Your task to perform on an android device: Open privacy settings Image 0: 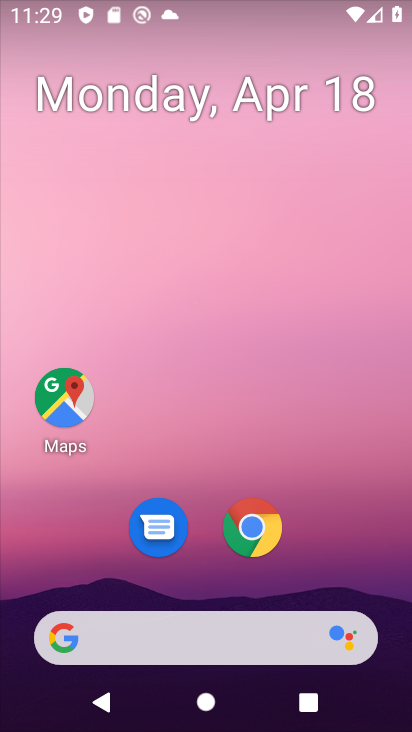
Step 0: drag from (223, 614) to (404, 137)
Your task to perform on an android device: Open privacy settings Image 1: 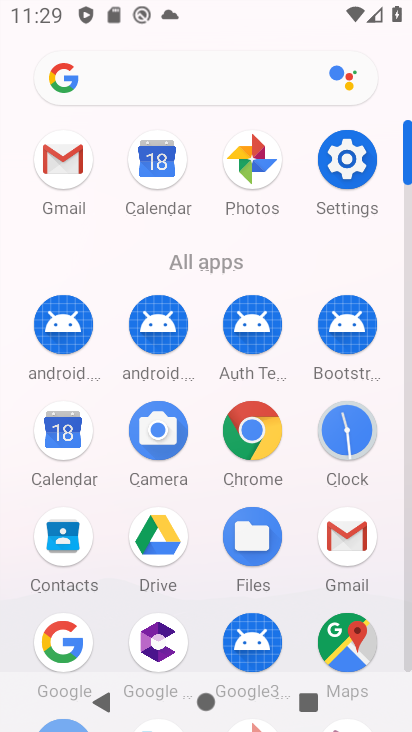
Step 1: click (361, 160)
Your task to perform on an android device: Open privacy settings Image 2: 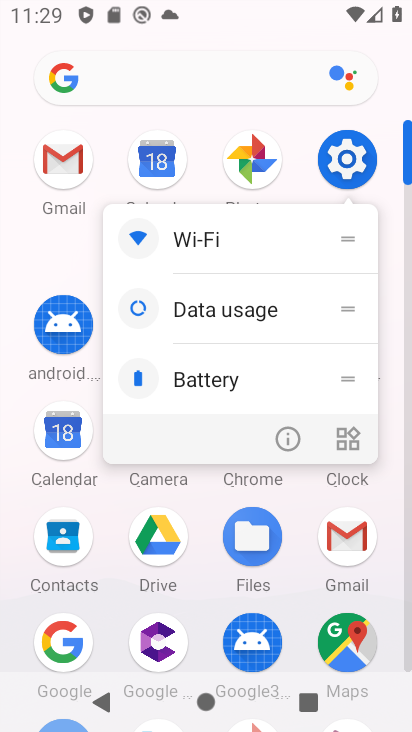
Step 2: click (361, 160)
Your task to perform on an android device: Open privacy settings Image 3: 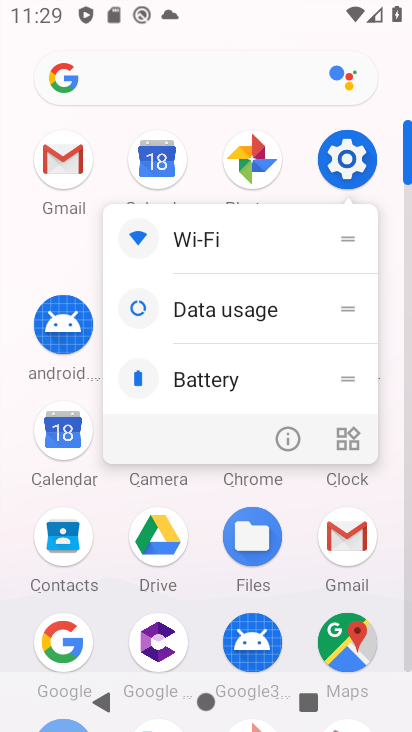
Step 3: click (361, 160)
Your task to perform on an android device: Open privacy settings Image 4: 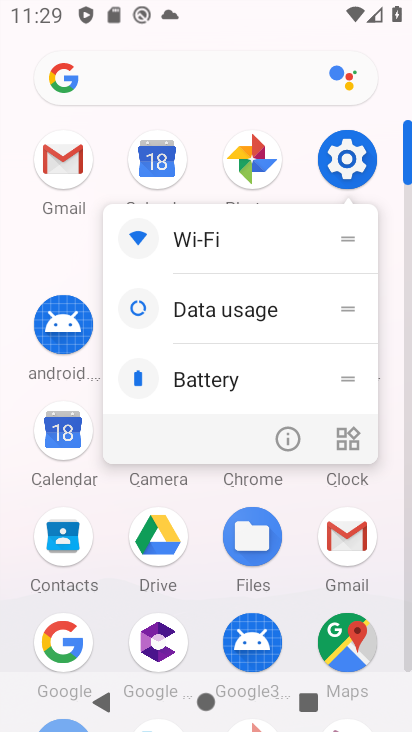
Step 4: click (361, 160)
Your task to perform on an android device: Open privacy settings Image 5: 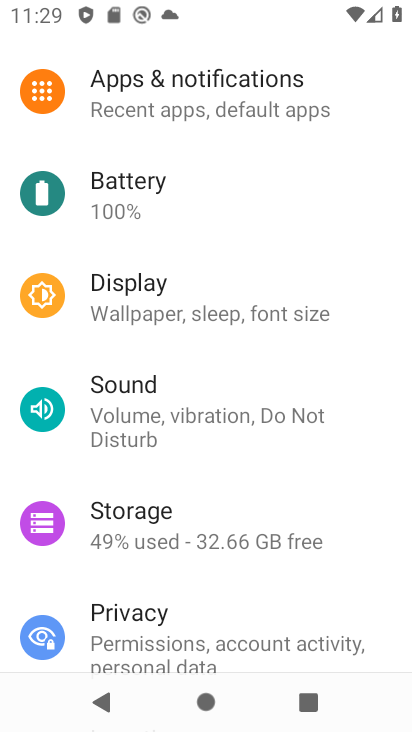
Step 5: click (355, 153)
Your task to perform on an android device: Open privacy settings Image 6: 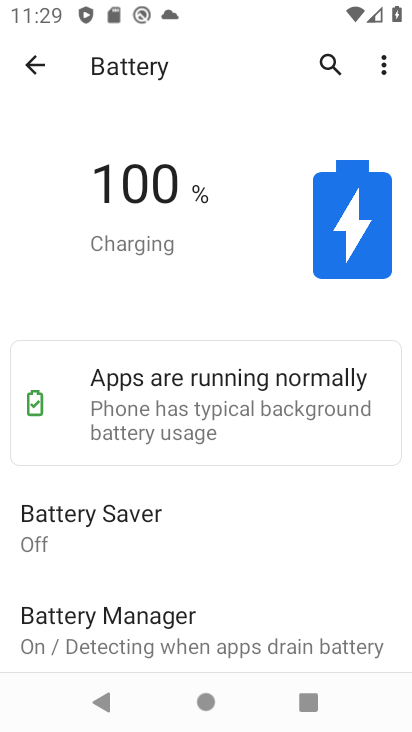
Step 6: click (44, 63)
Your task to perform on an android device: Open privacy settings Image 7: 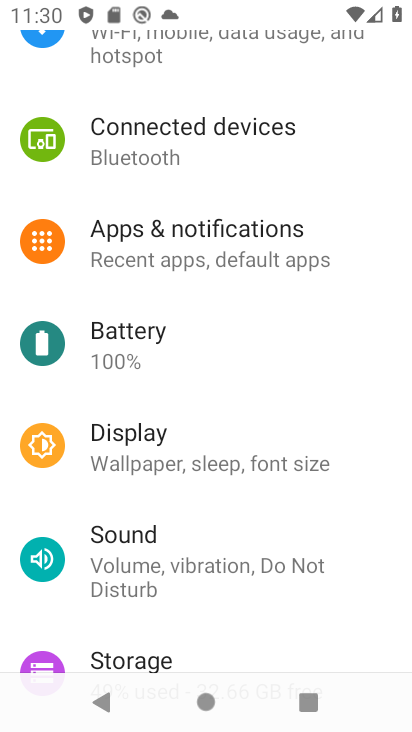
Step 7: drag from (158, 552) to (339, 189)
Your task to perform on an android device: Open privacy settings Image 8: 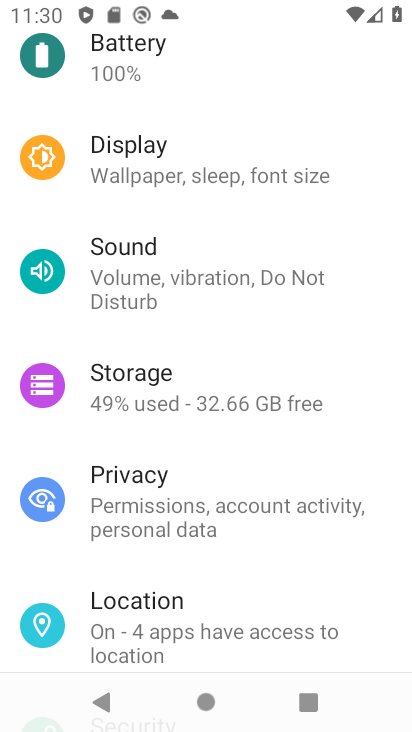
Step 8: click (136, 514)
Your task to perform on an android device: Open privacy settings Image 9: 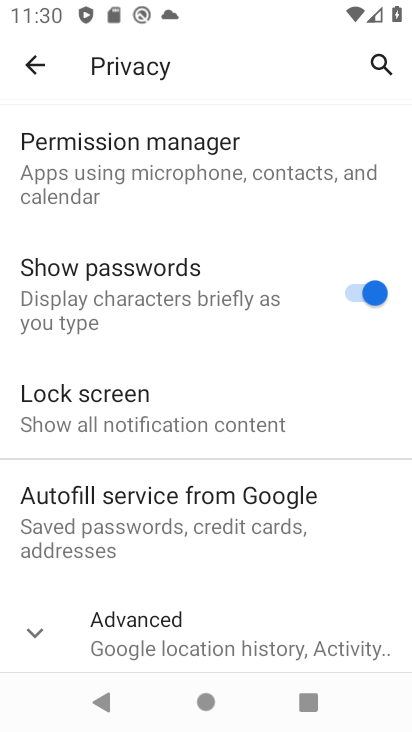
Step 9: task complete